Your task to perform on an android device: Go to sound settings Image 0: 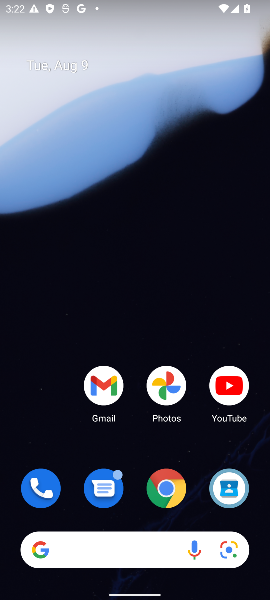
Step 0: drag from (145, 453) to (113, 96)
Your task to perform on an android device: Go to sound settings Image 1: 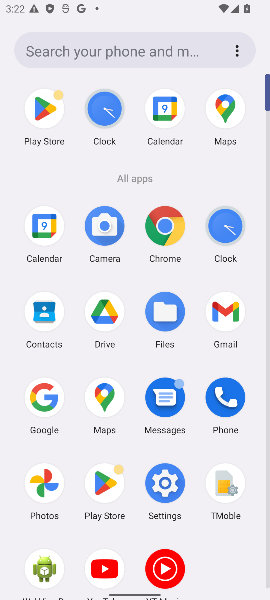
Step 1: click (164, 484)
Your task to perform on an android device: Go to sound settings Image 2: 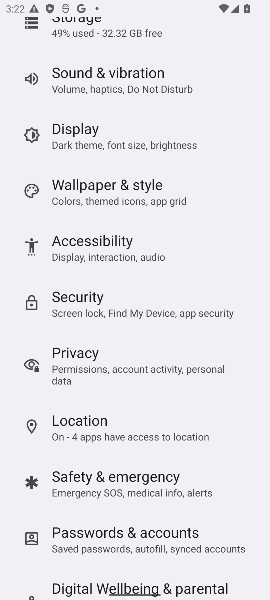
Step 2: click (139, 76)
Your task to perform on an android device: Go to sound settings Image 3: 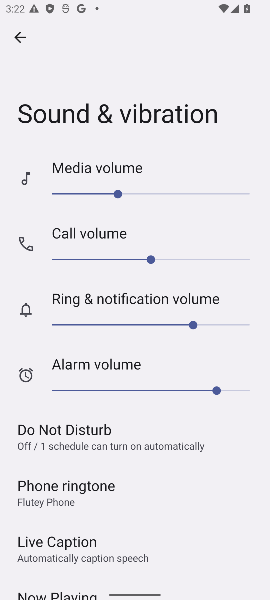
Step 3: task complete